Your task to perform on an android device: What is the capital of the United Kingdom? Image 0: 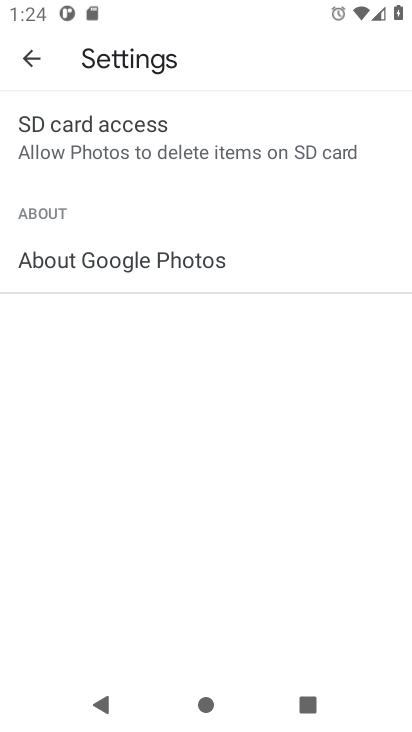
Step 0: press home button
Your task to perform on an android device: What is the capital of the United Kingdom? Image 1: 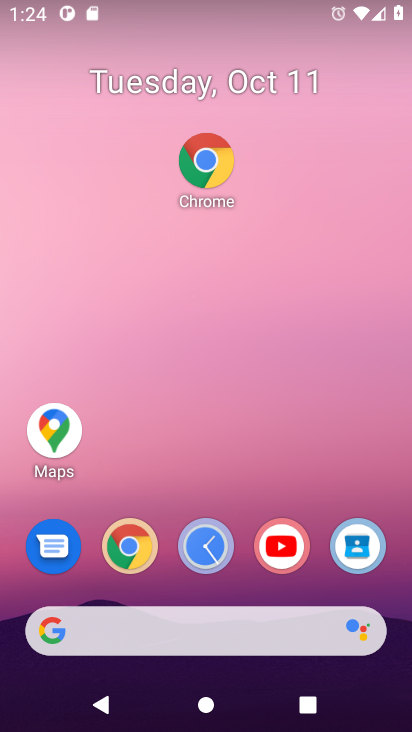
Step 1: click (210, 162)
Your task to perform on an android device: What is the capital of the United Kingdom? Image 2: 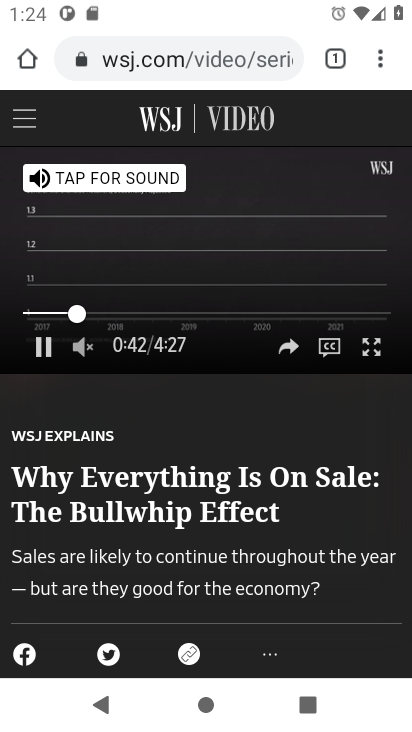
Step 2: click (247, 56)
Your task to perform on an android device: What is the capital of the United Kingdom? Image 3: 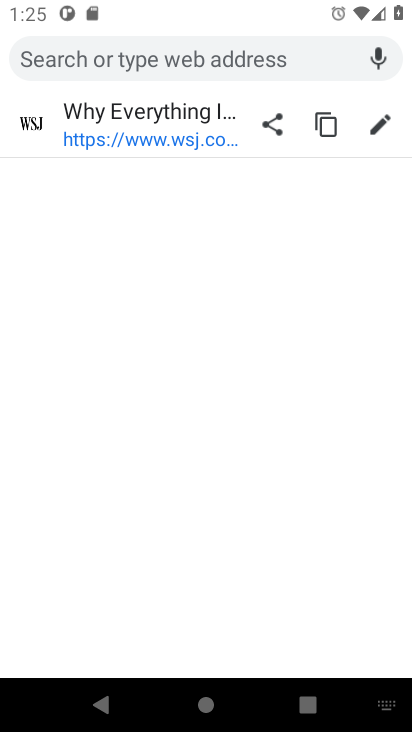
Step 3: type "capital of United Kingdom"
Your task to perform on an android device: What is the capital of the United Kingdom? Image 4: 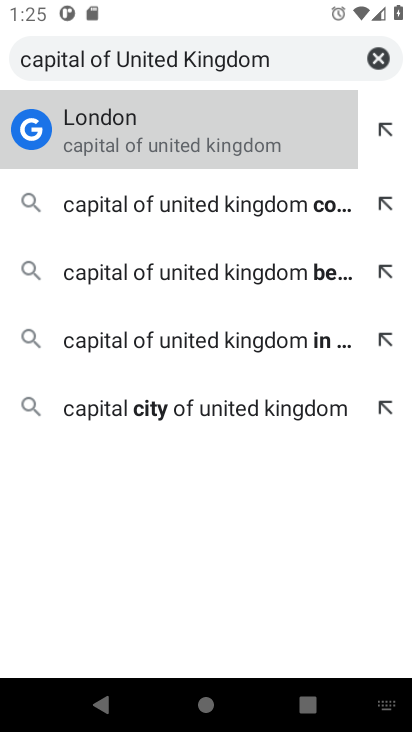
Step 4: press enter
Your task to perform on an android device: What is the capital of the United Kingdom? Image 5: 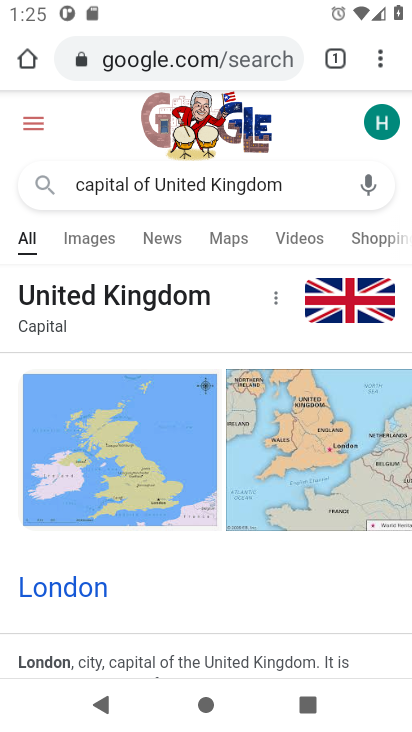
Step 5: task complete